Your task to perform on an android device: Open Chrome and go to settings Image 0: 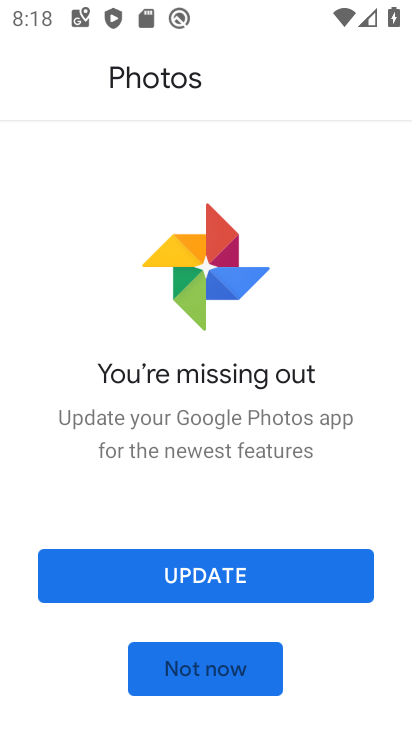
Step 0: press home button
Your task to perform on an android device: Open Chrome and go to settings Image 1: 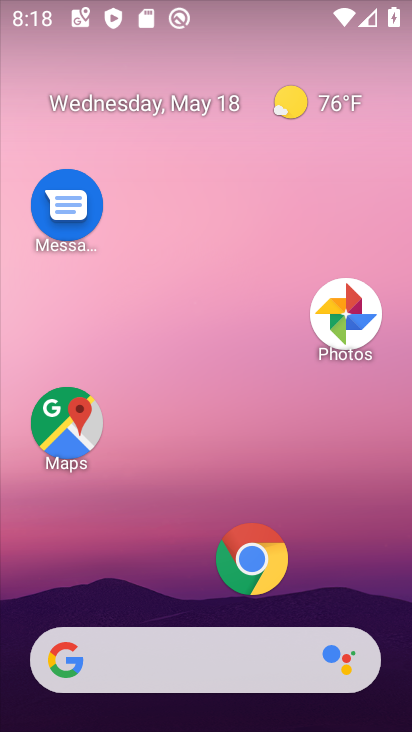
Step 1: click (241, 564)
Your task to perform on an android device: Open Chrome and go to settings Image 2: 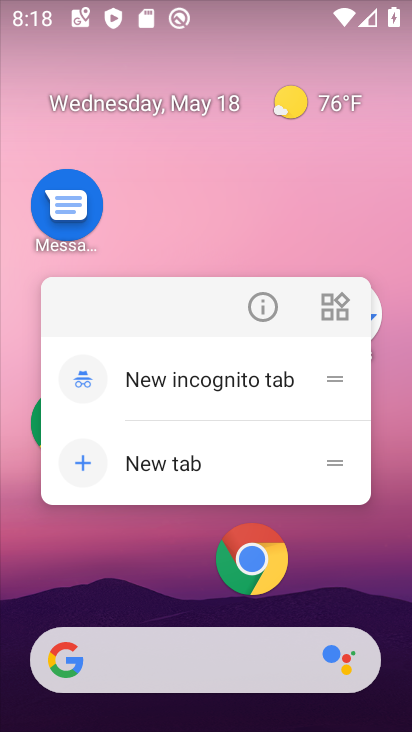
Step 2: click (242, 562)
Your task to perform on an android device: Open Chrome and go to settings Image 3: 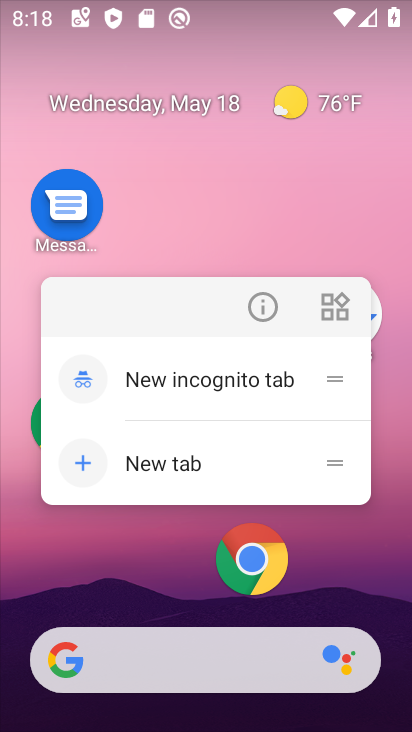
Step 3: click (242, 562)
Your task to perform on an android device: Open Chrome and go to settings Image 4: 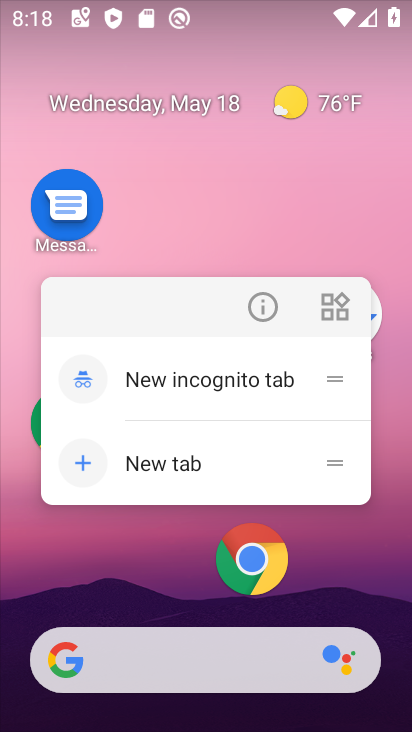
Step 4: click (266, 557)
Your task to perform on an android device: Open Chrome and go to settings Image 5: 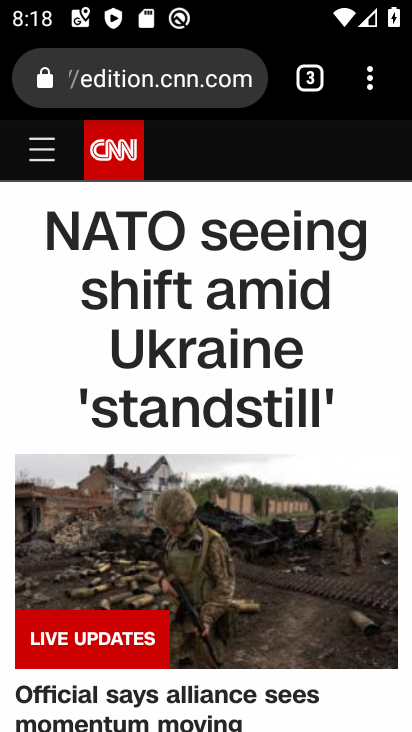
Step 5: click (365, 81)
Your task to perform on an android device: Open Chrome and go to settings Image 6: 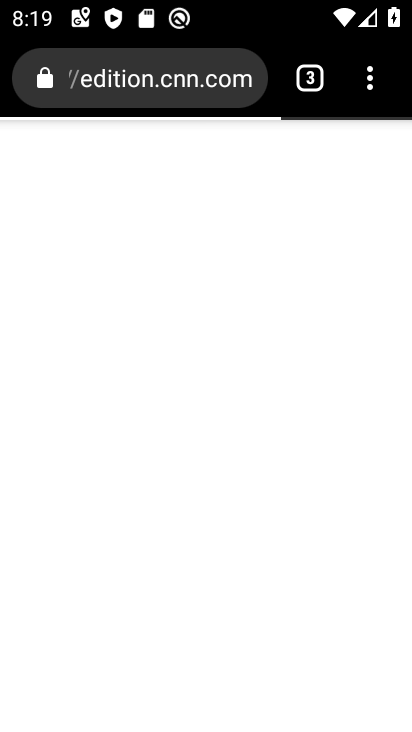
Step 6: click (369, 85)
Your task to perform on an android device: Open Chrome and go to settings Image 7: 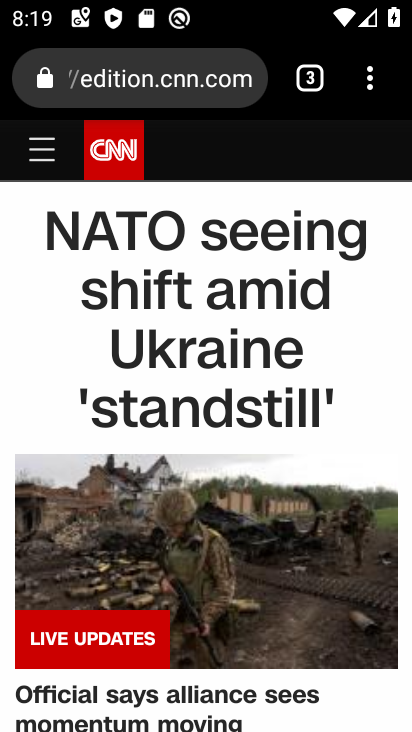
Step 7: task complete